Your task to perform on an android device: Open location settings Image 0: 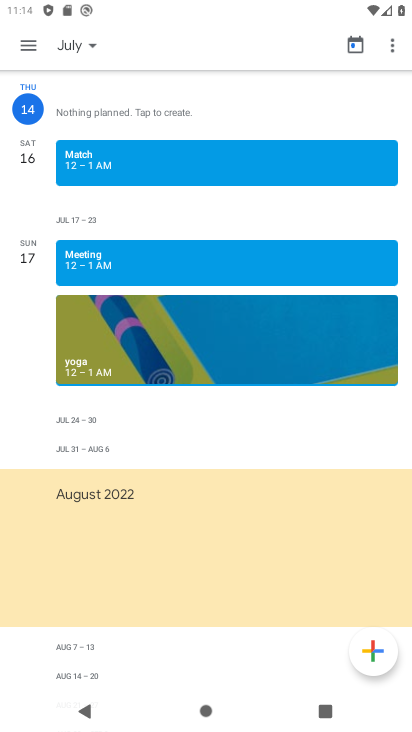
Step 0: press home button
Your task to perform on an android device: Open location settings Image 1: 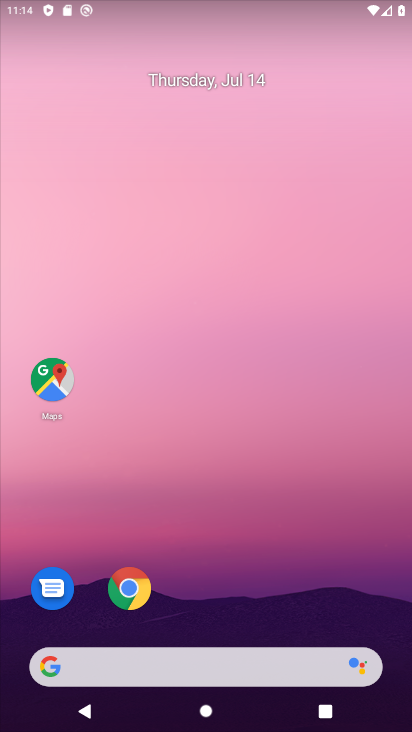
Step 1: drag from (208, 525) to (254, 57)
Your task to perform on an android device: Open location settings Image 2: 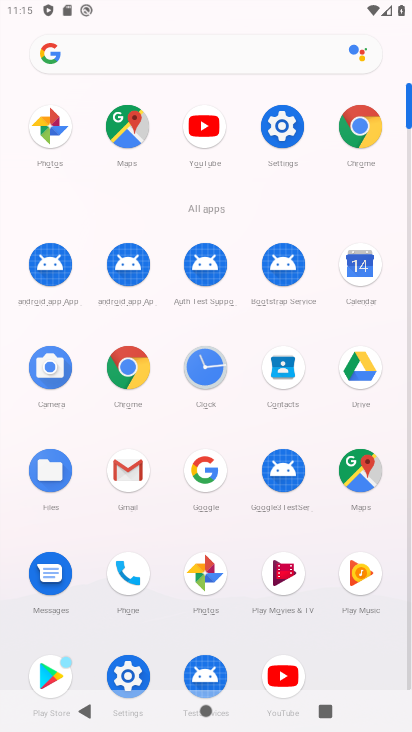
Step 2: click (133, 662)
Your task to perform on an android device: Open location settings Image 3: 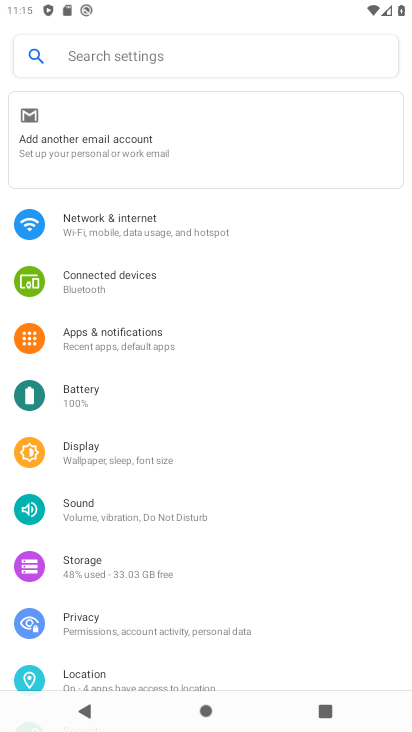
Step 3: click (86, 665)
Your task to perform on an android device: Open location settings Image 4: 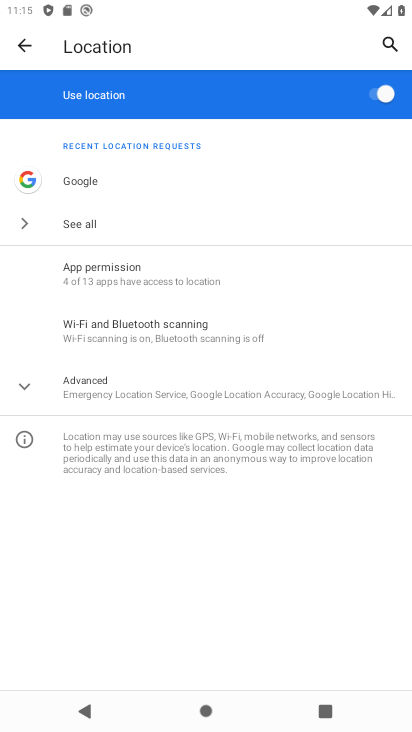
Step 4: task complete